Your task to perform on an android device: search for starred emails in the gmail app Image 0: 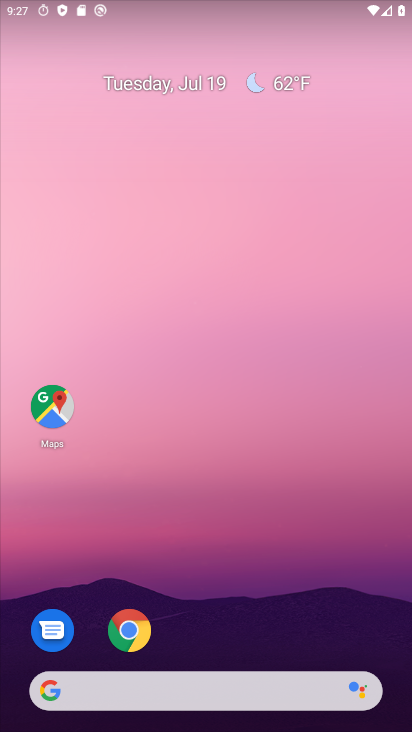
Step 0: drag from (163, 664) to (199, 332)
Your task to perform on an android device: search for starred emails in the gmail app Image 1: 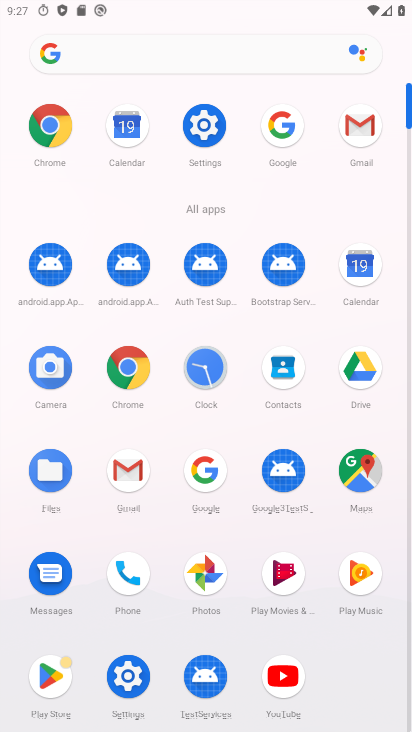
Step 1: click (112, 478)
Your task to perform on an android device: search for starred emails in the gmail app Image 2: 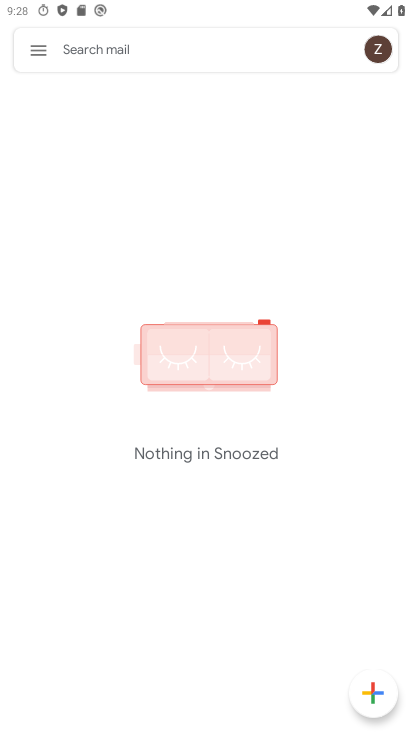
Step 2: click (39, 48)
Your task to perform on an android device: search for starred emails in the gmail app Image 3: 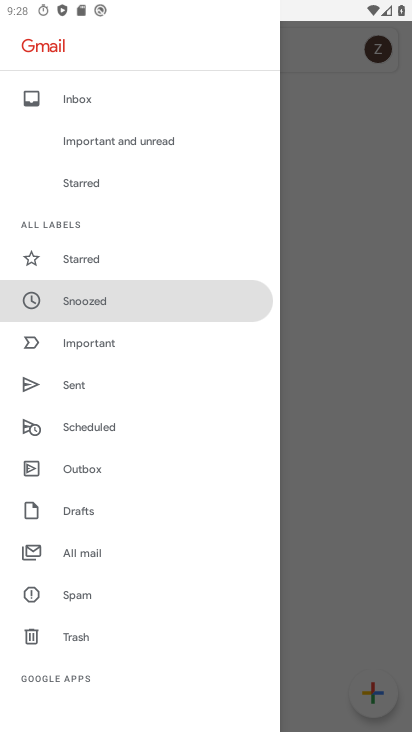
Step 3: click (67, 251)
Your task to perform on an android device: search for starred emails in the gmail app Image 4: 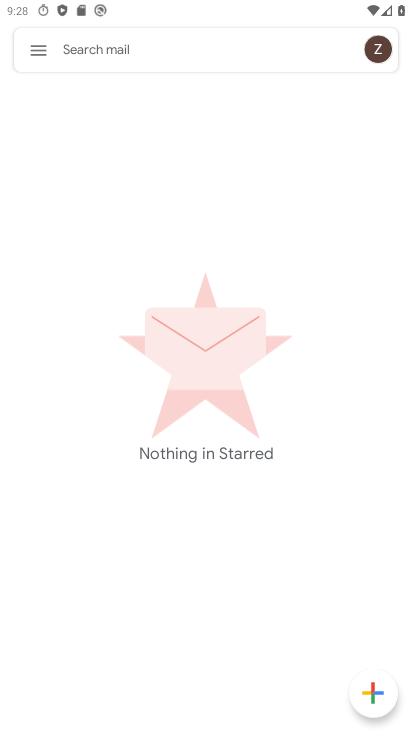
Step 4: task complete